Your task to perform on an android device: open app "Mercado Libre" (install if not already installed) Image 0: 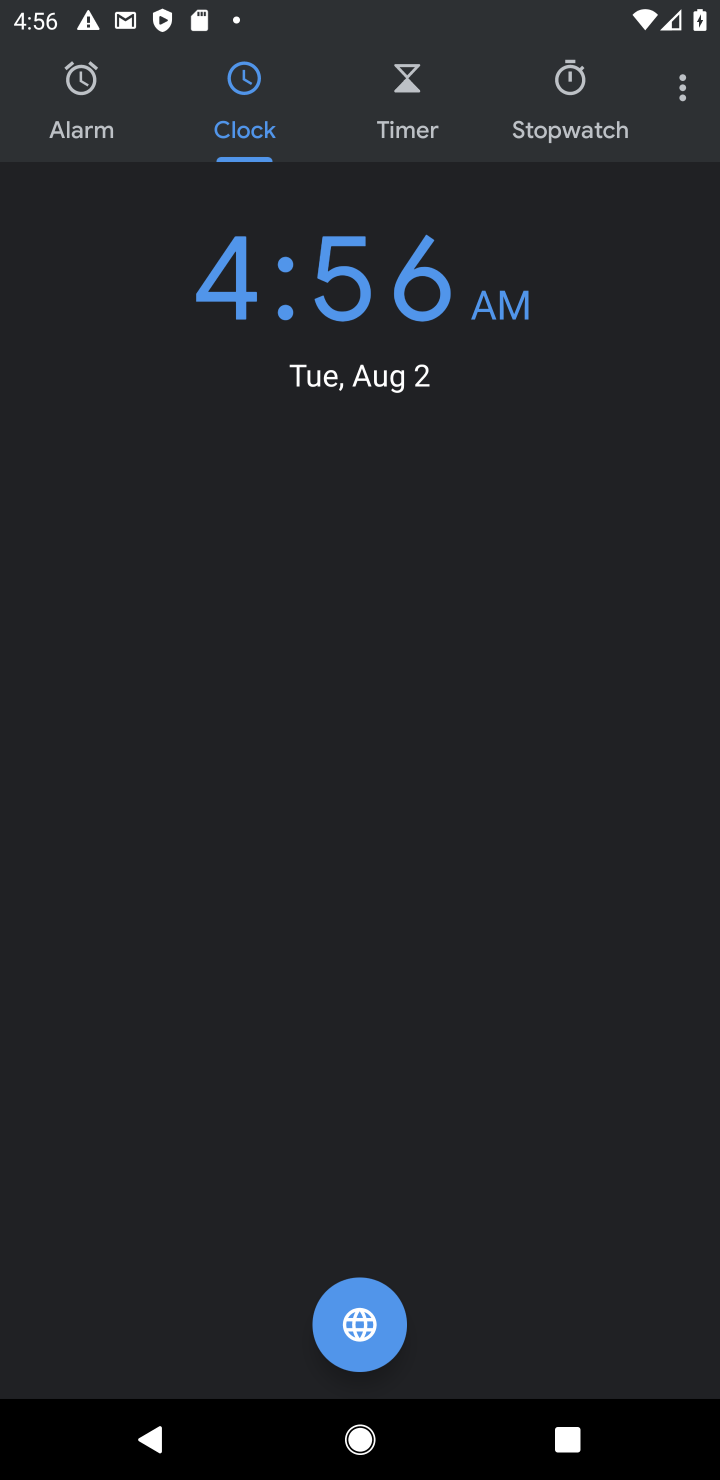
Step 0: press home button
Your task to perform on an android device: open app "Mercado Libre" (install if not already installed) Image 1: 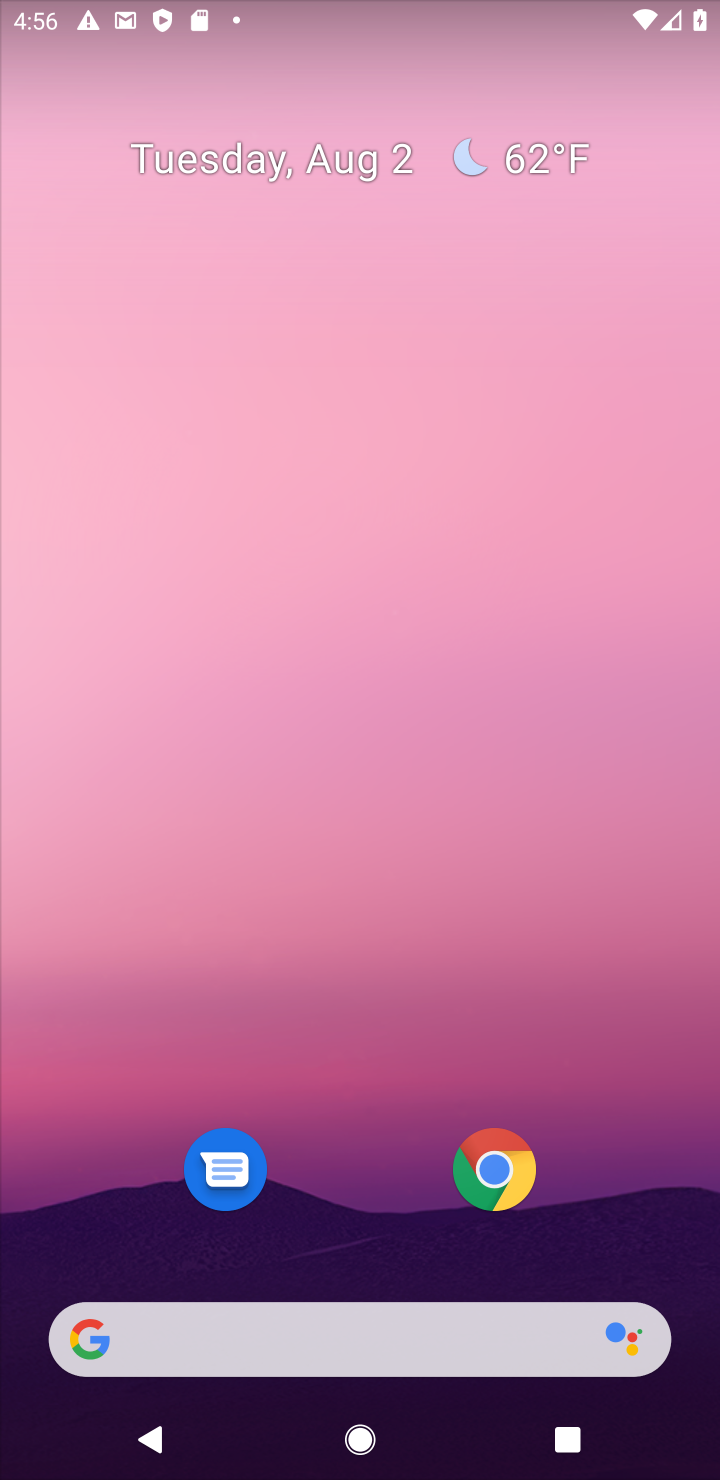
Step 1: drag from (491, 1050) to (324, 331)
Your task to perform on an android device: open app "Mercado Libre" (install if not already installed) Image 2: 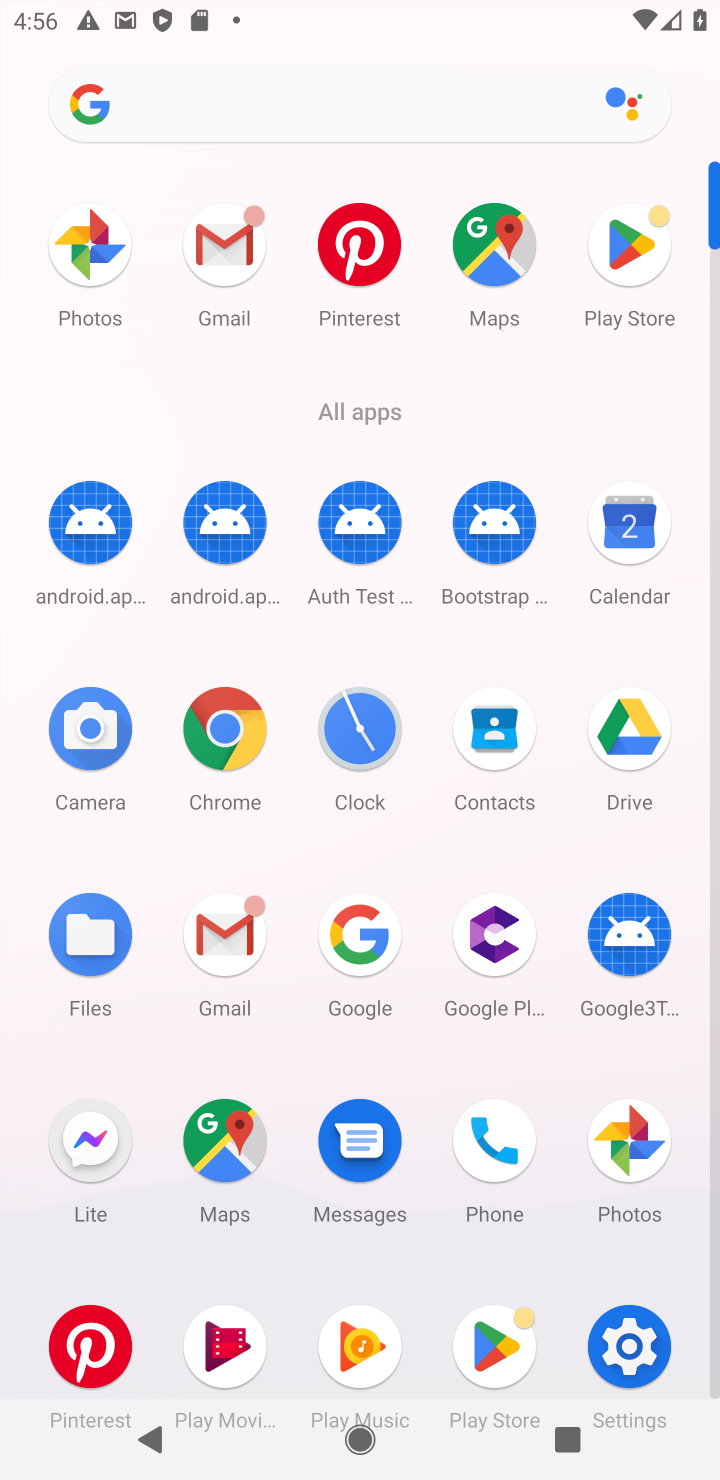
Step 2: click (630, 270)
Your task to perform on an android device: open app "Mercado Libre" (install if not already installed) Image 3: 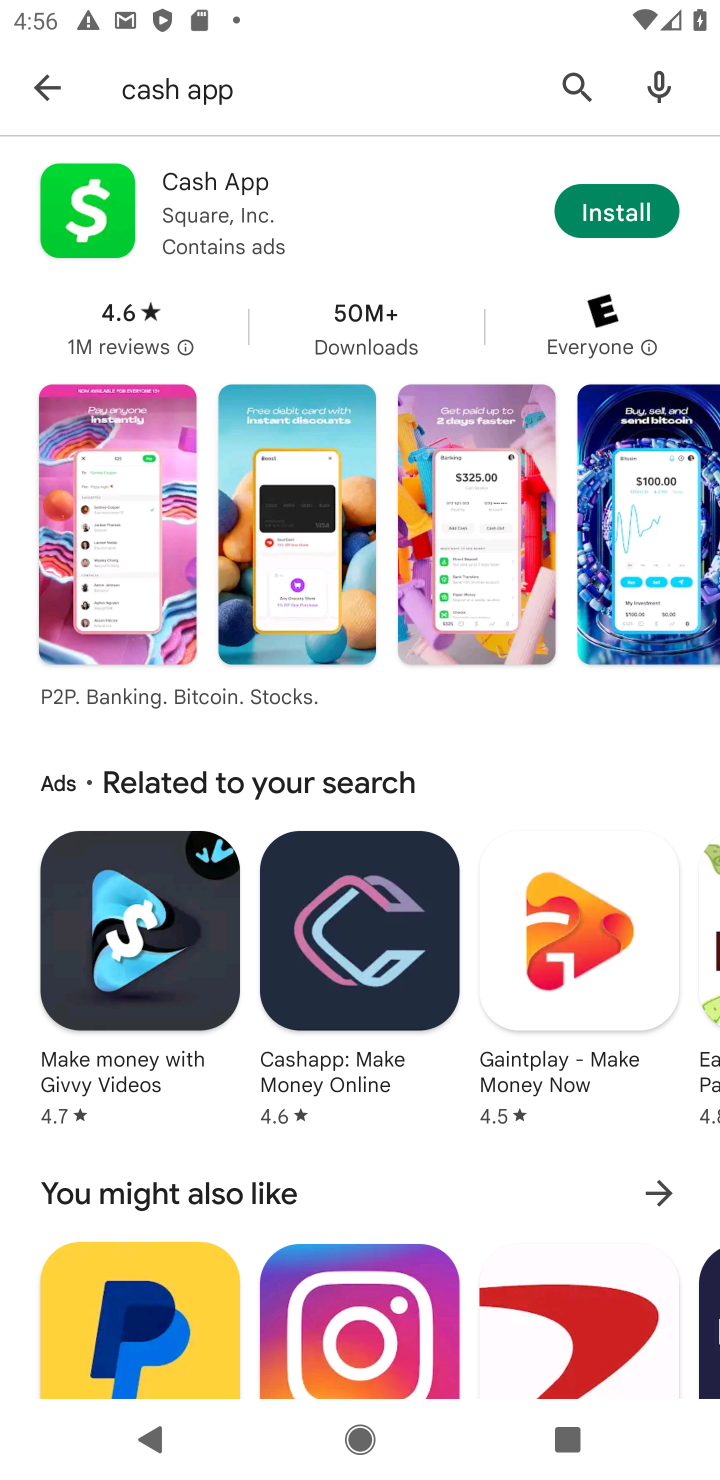
Step 3: click (582, 94)
Your task to perform on an android device: open app "Mercado Libre" (install if not already installed) Image 4: 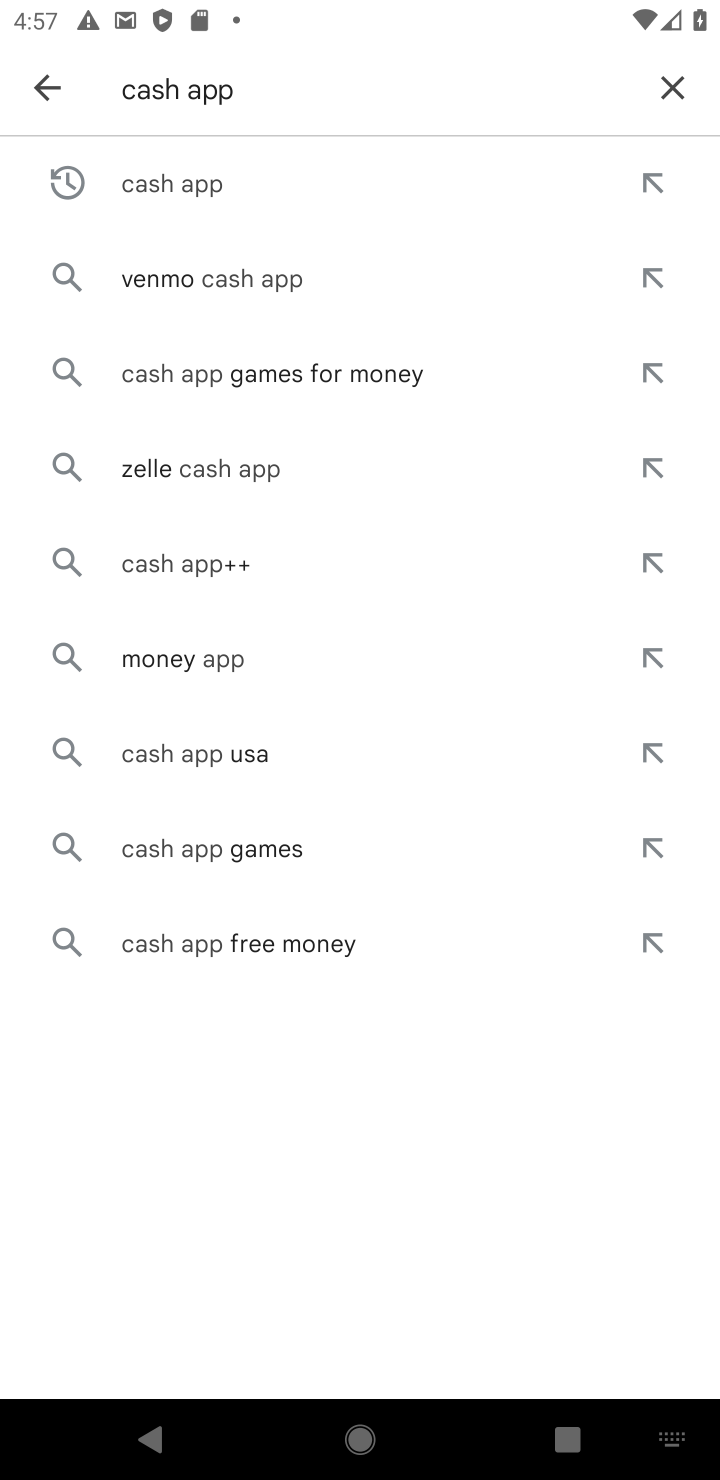
Step 4: click (676, 78)
Your task to perform on an android device: open app "Mercado Libre" (install if not already installed) Image 5: 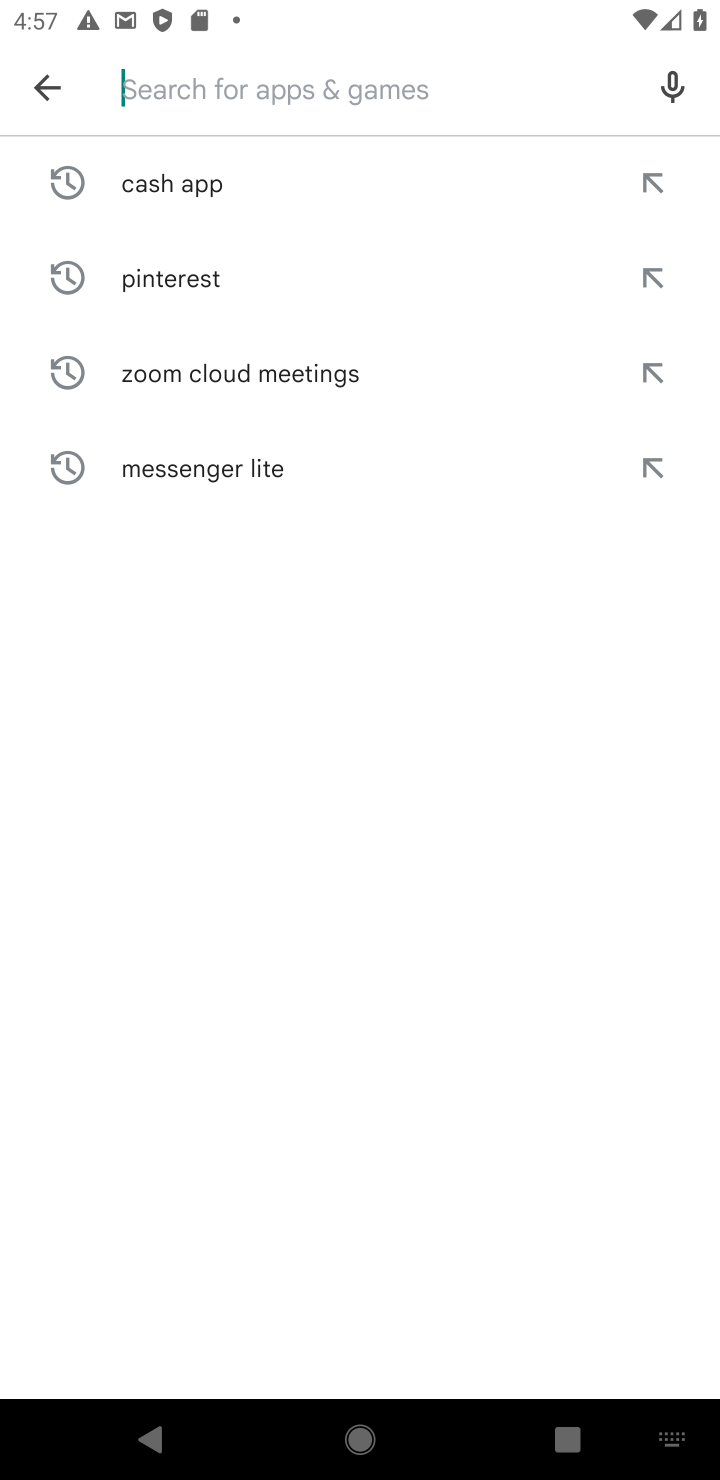
Step 5: type "mercado libre"
Your task to perform on an android device: open app "Mercado Libre" (install if not already installed) Image 6: 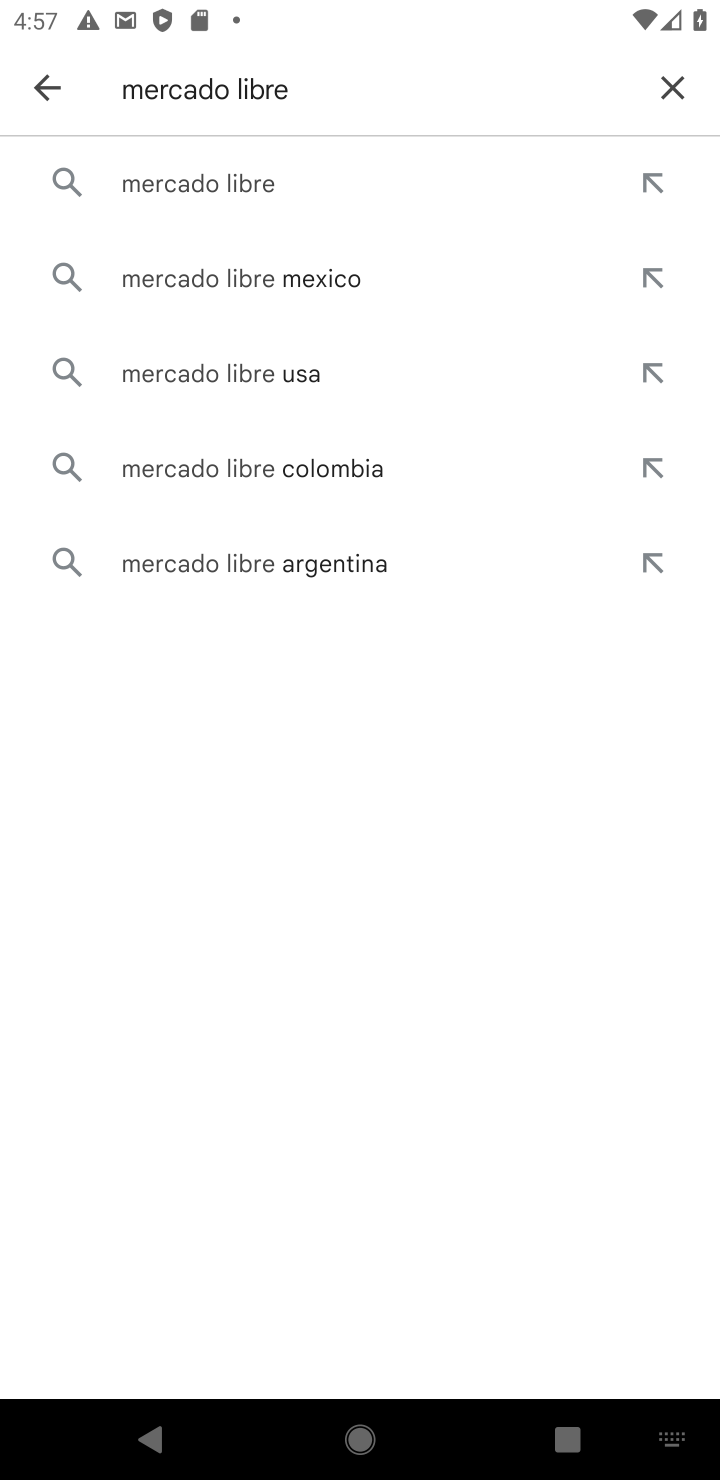
Step 6: click (327, 174)
Your task to perform on an android device: open app "Mercado Libre" (install if not already installed) Image 7: 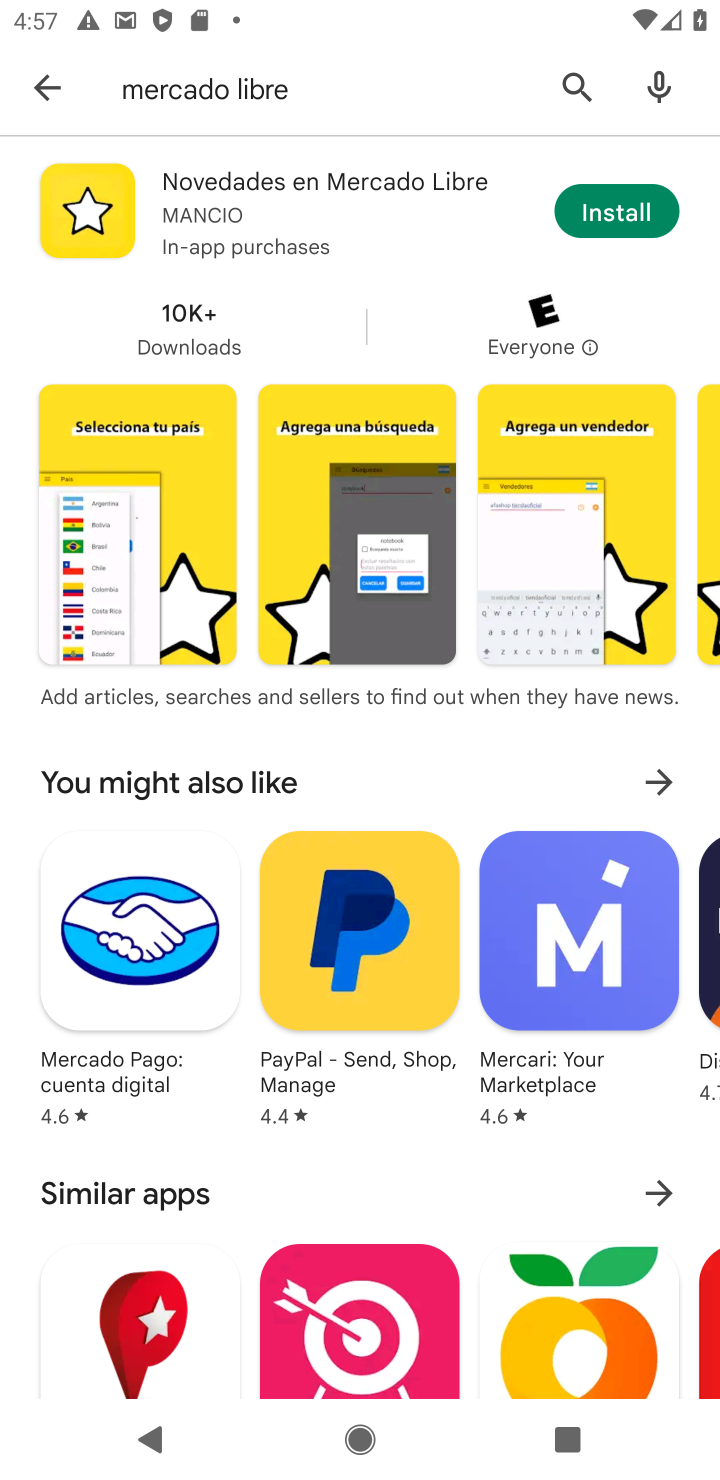
Step 7: click (607, 208)
Your task to perform on an android device: open app "Mercado Libre" (install if not already installed) Image 8: 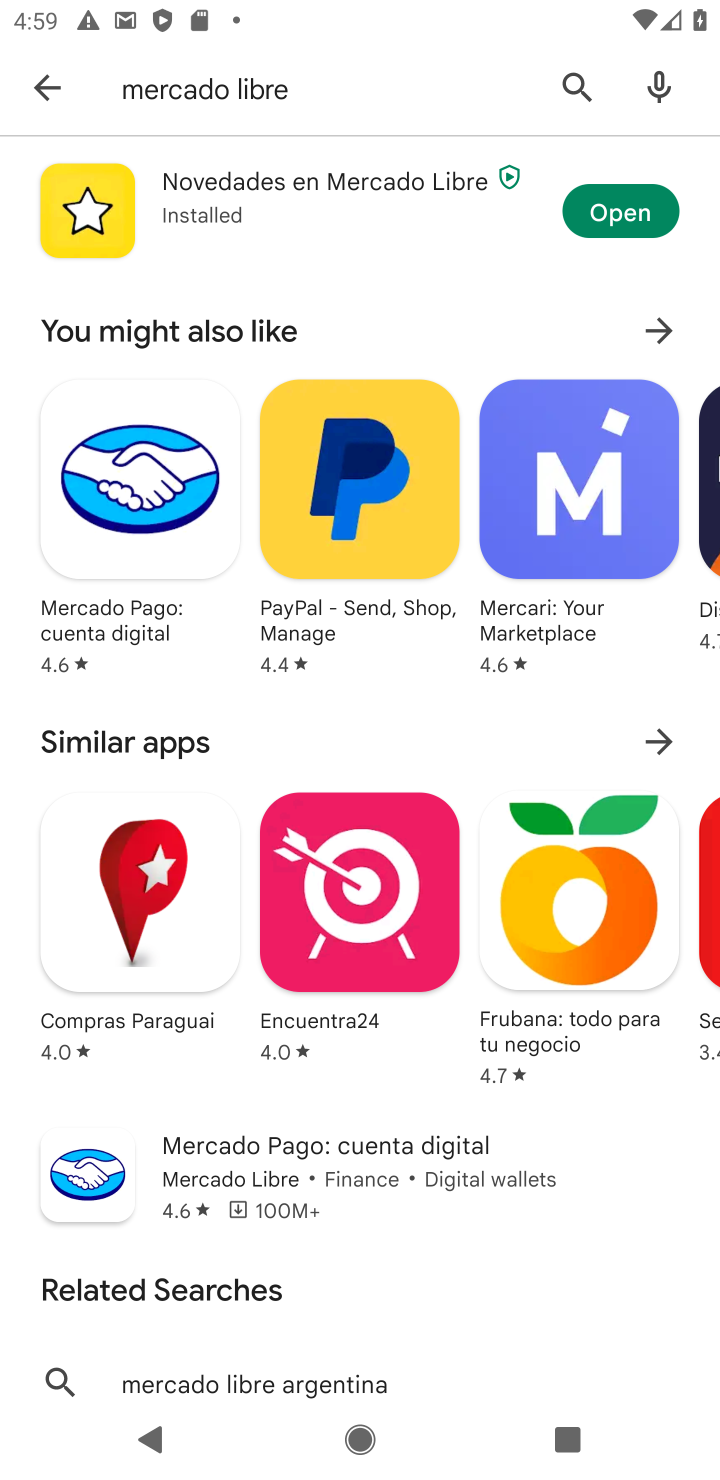
Step 8: click (632, 222)
Your task to perform on an android device: open app "Mercado Libre" (install if not already installed) Image 9: 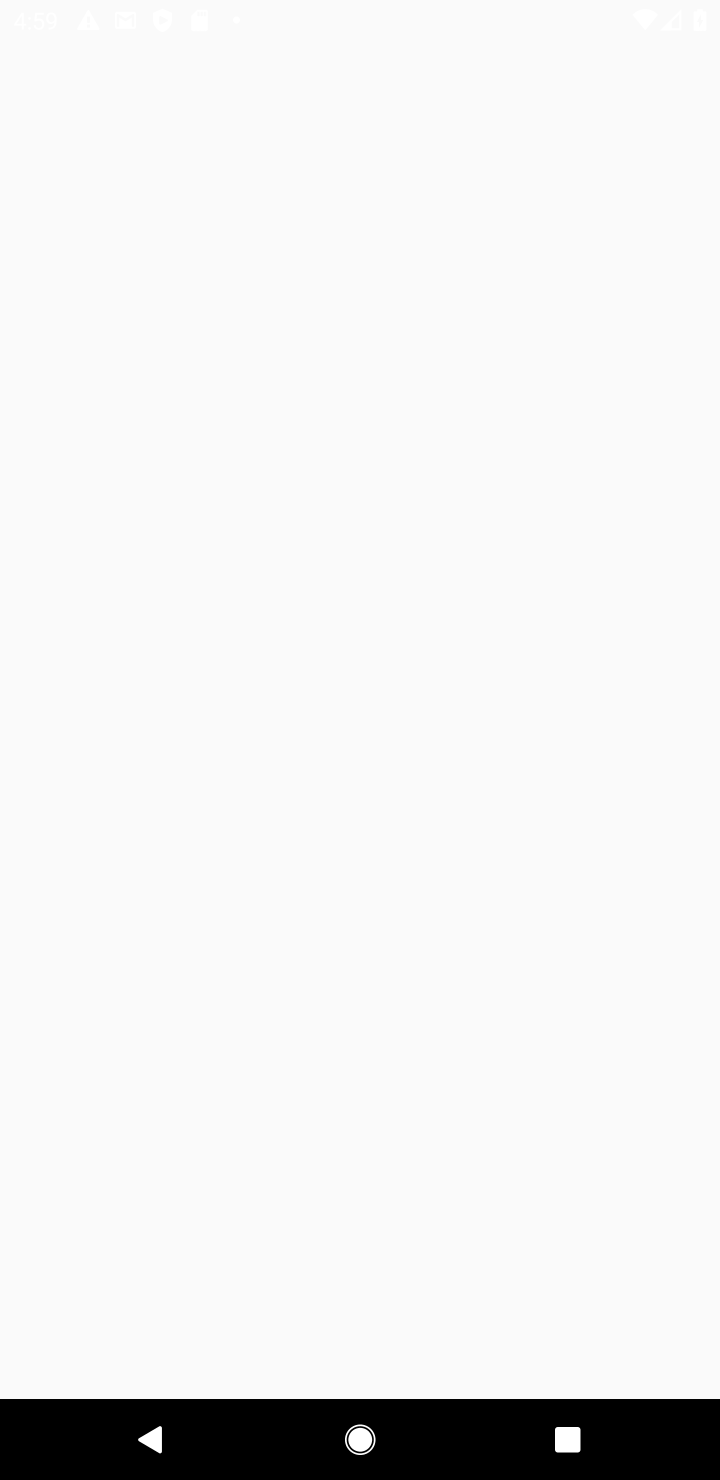
Step 9: task complete